Your task to perform on an android device: change timer sound Image 0: 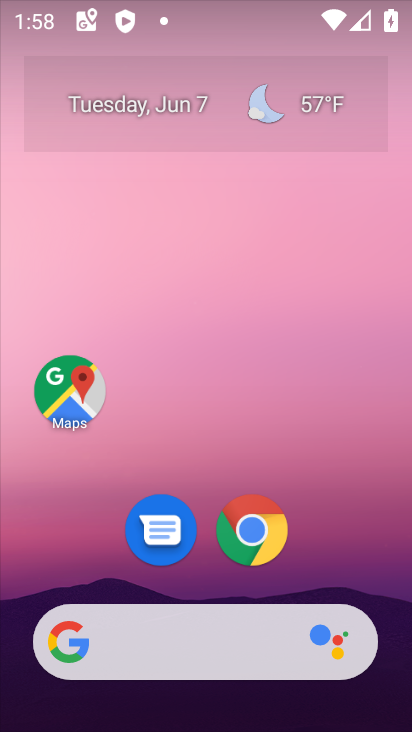
Step 0: drag from (315, 530) to (269, 108)
Your task to perform on an android device: change timer sound Image 1: 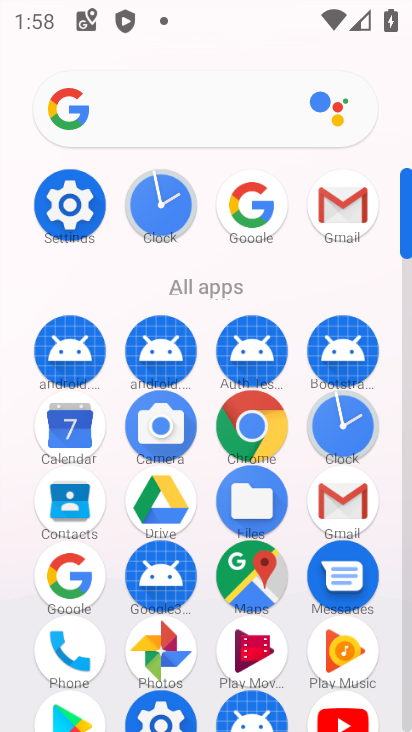
Step 1: click (163, 199)
Your task to perform on an android device: change timer sound Image 2: 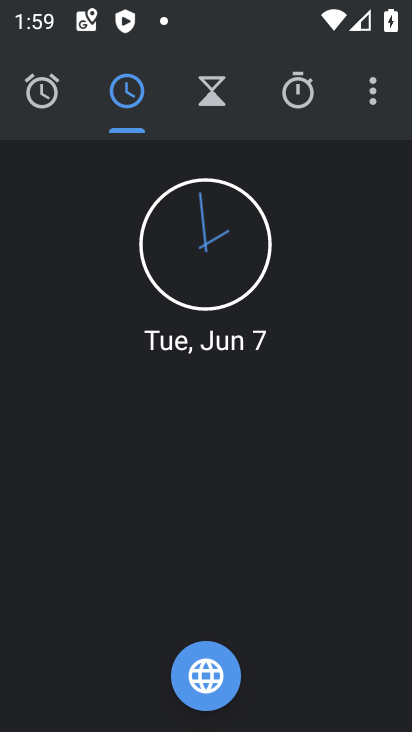
Step 2: click (369, 88)
Your task to perform on an android device: change timer sound Image 3: 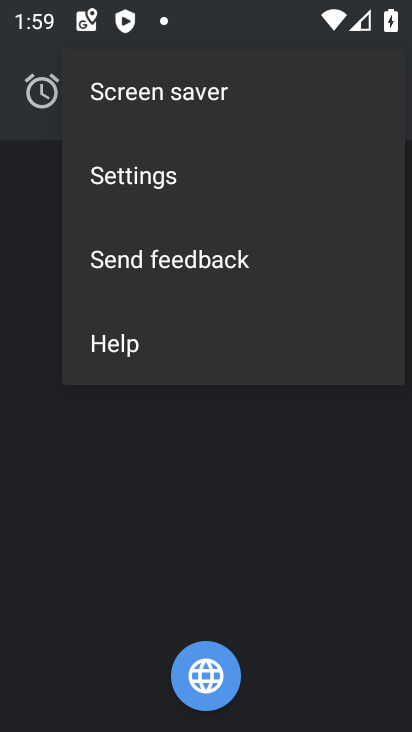
Step 3: click (181, 179)
Your task to perform on an android device: change timer sound Image 4: 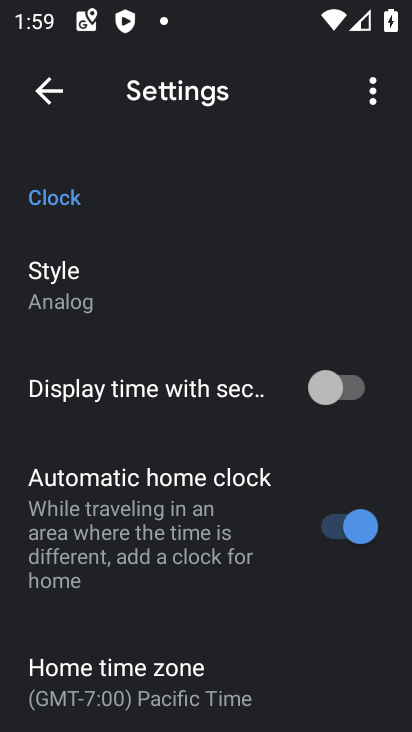
Step 4: drag from (167, 359) to (170, 215)
Your task to perform on an android device: change timer sound Image 5: 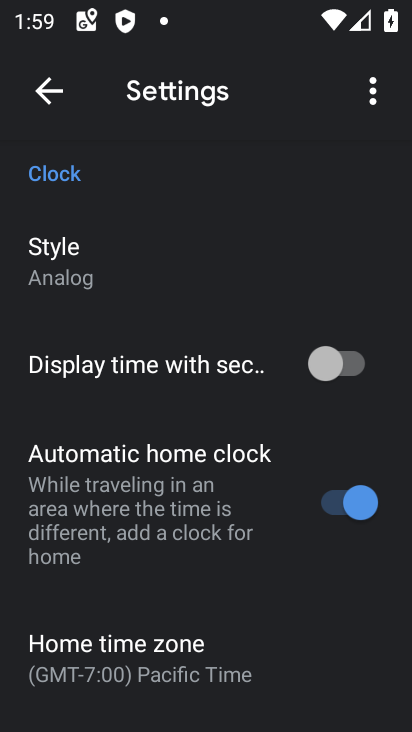
Step 5: drag from (234, 609) to (212, 86)
Your task to perform on an android device: change timer sound Image 6: 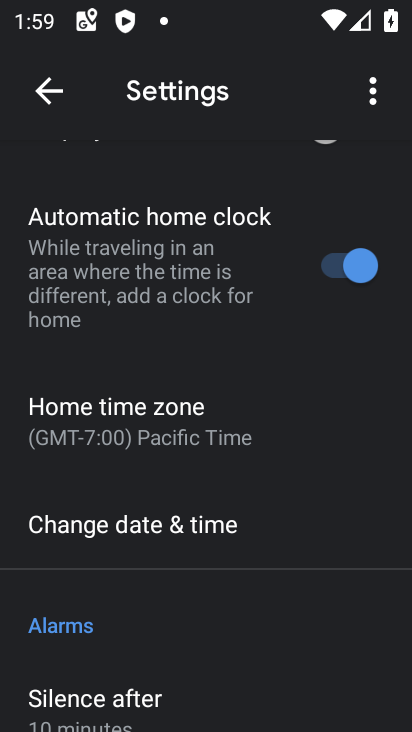
Step 6: drag from (192, 649) to (153, 142)
Your task to perform on an android device: change timer sound Image 7: 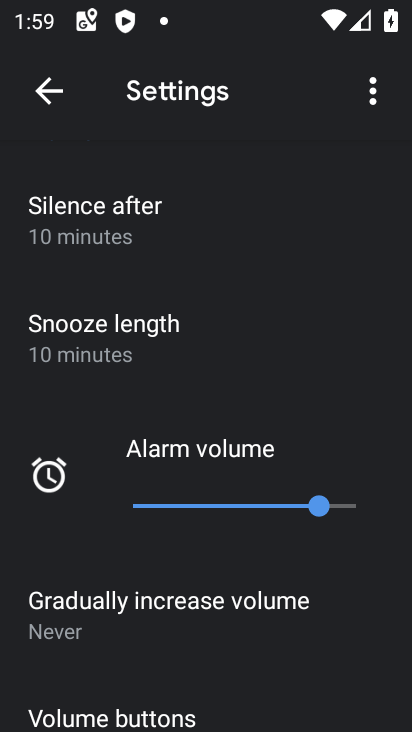
Step 7: drag from (198, 613) to (169, 242)
Your task to perform on an android device: change timer sound Image 8: 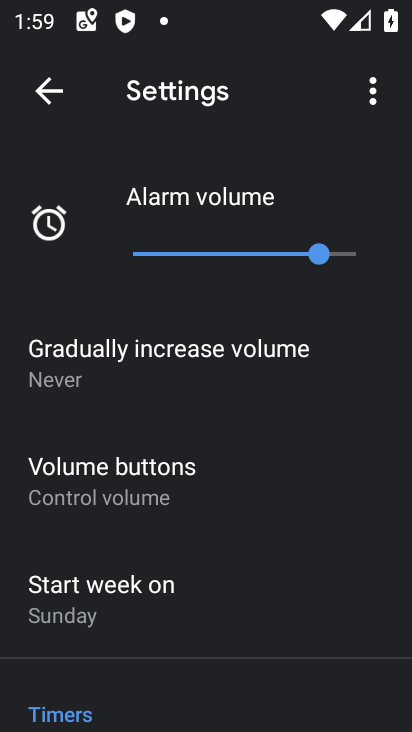
Step 8: drag from (187, 545) to (178, 256)
Your task to perform on an android device: change timer sound Image 9: 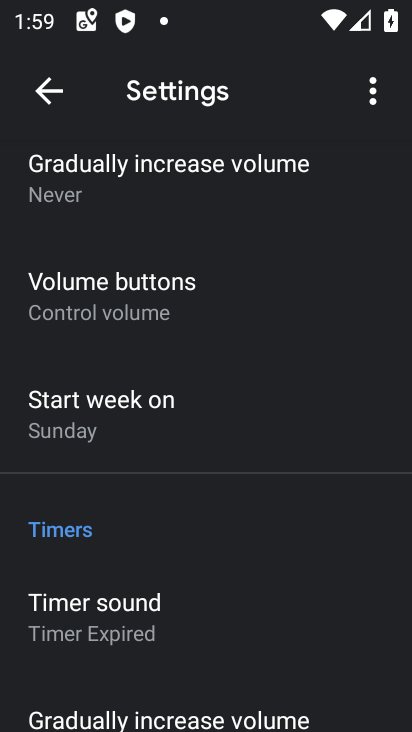
Step 9: click (160, 623)
Your task to perform on an android device: change timer sound Image 10: 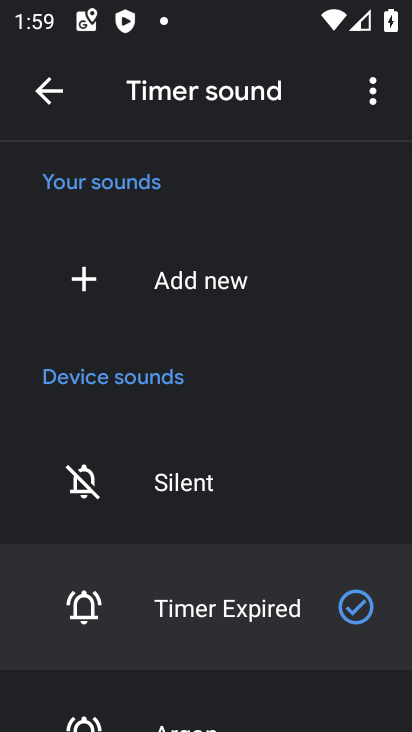
Step 10: click (225, 487)
Your task to perform on an android device: change timer sound Image 11: 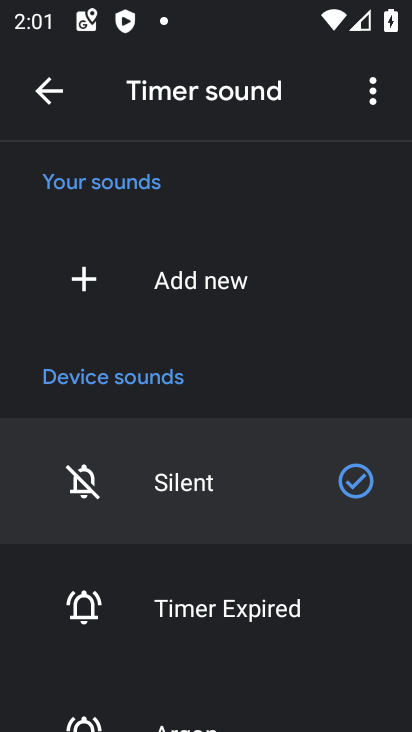
Step 11: task complete